Your task to perform on an android device: Go to notification settings Image 0: 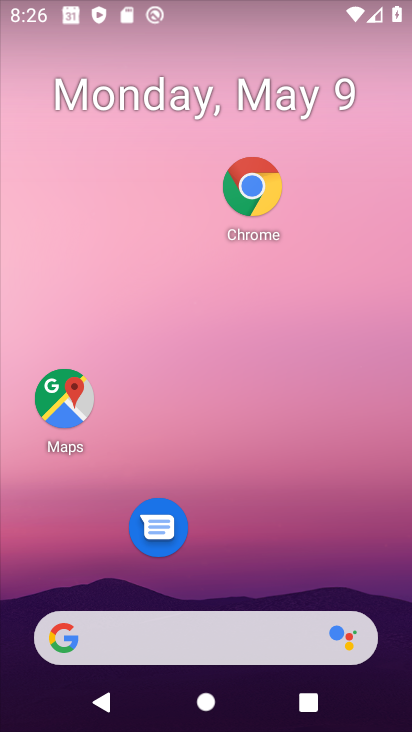
Step 0: drag from (206, 579) to (204, 90)
Your task to perform on an android device: Go to notification settings Image 1: 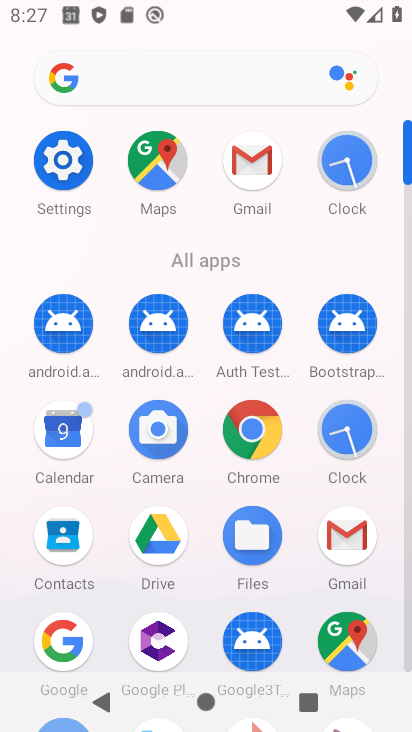
Step 1: click (62, 153)
Your task to perform on an android device: Go to notification settings Image 2: 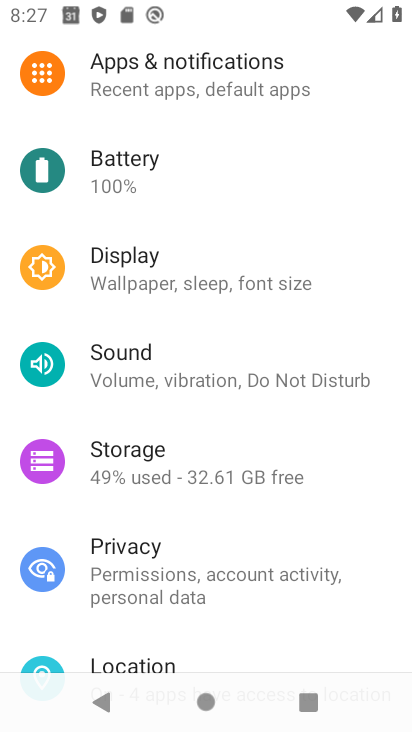
Step 2: click (298, 71)
Your task to perform on an android device: Go to notification settings Image 3: 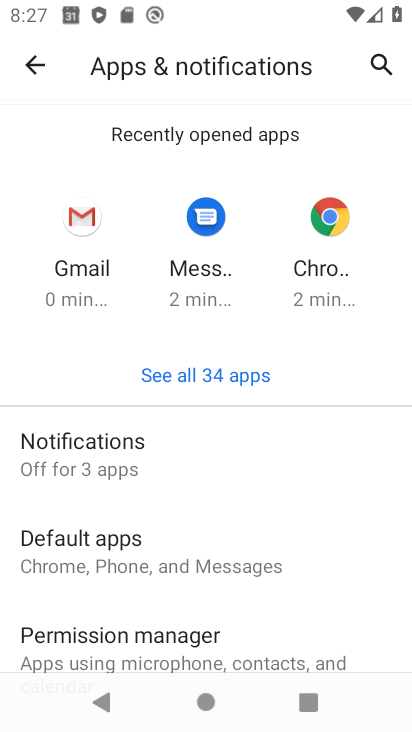
Step 3: click (148, 453)
Your task to perform on an android device: Go to notification settings Image 4: 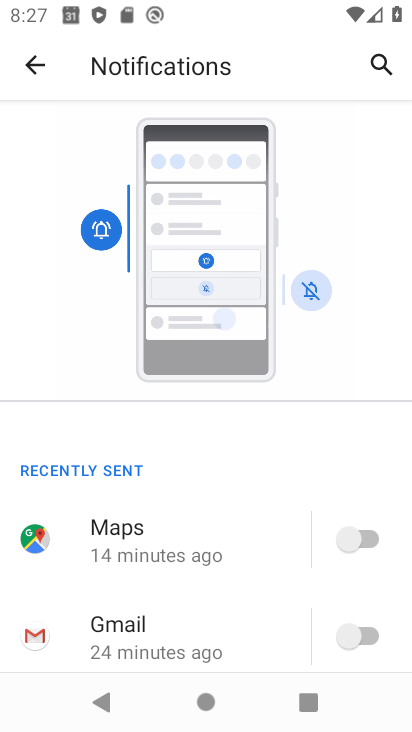
Step 4: drag from (210, 604) to (255, 265)
Your task to perform on an android device: Go to notification settings Image 5: 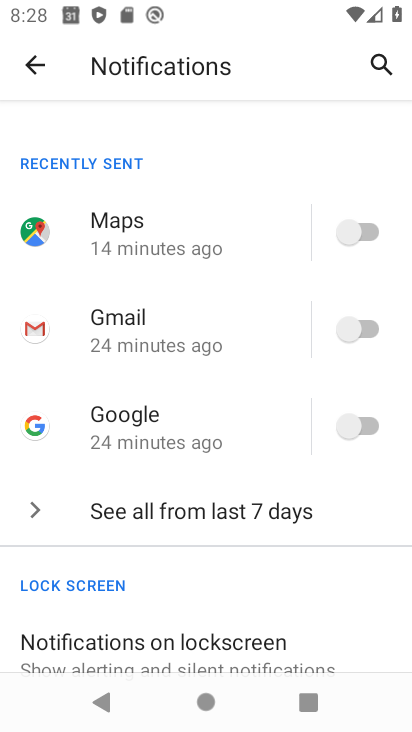
Step 5: click (365, 224)
Your task to perform on an android device: Go to notification settings Image 6: 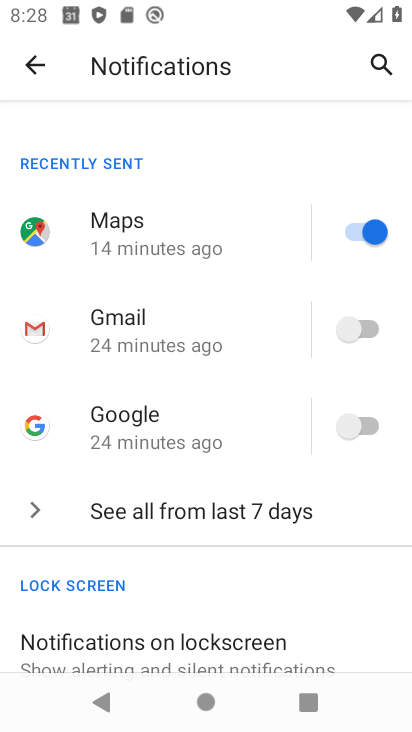
Step 6: click (361, 326)
Your task to perform on an android device: Go to notification settings Image 7: 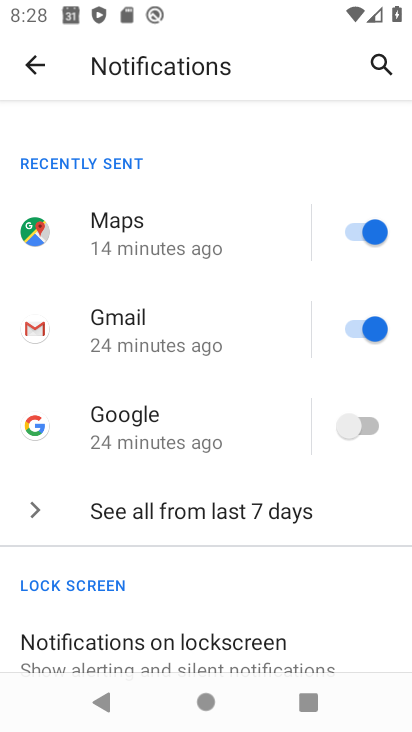
Step 7: click (368, 426)
Your task to perform on an android device: Go to notification settings Image 8: 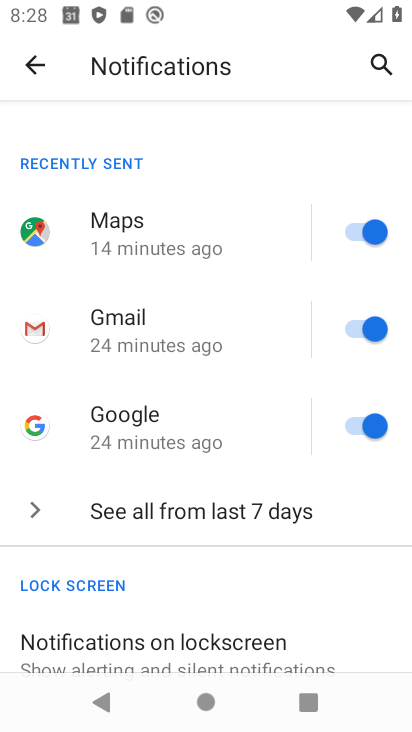
Step 8: click (179, 626)
Your task to perform on an android device: Go to notification settings Image 9: 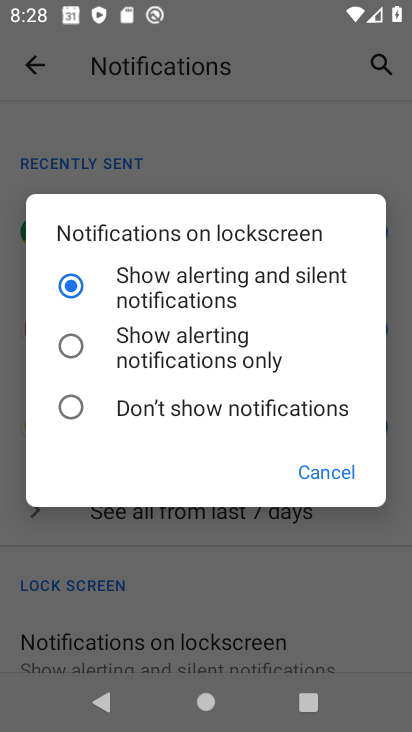
Step 9: click (78, 340)
Your task to perform on an android device: Go to notification settings Image 10: 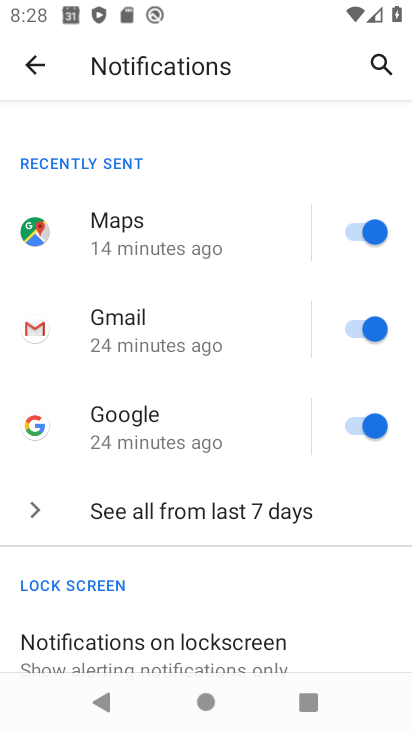
Step 10: task complete